Your task to perform on an android device: check storage Image 0: 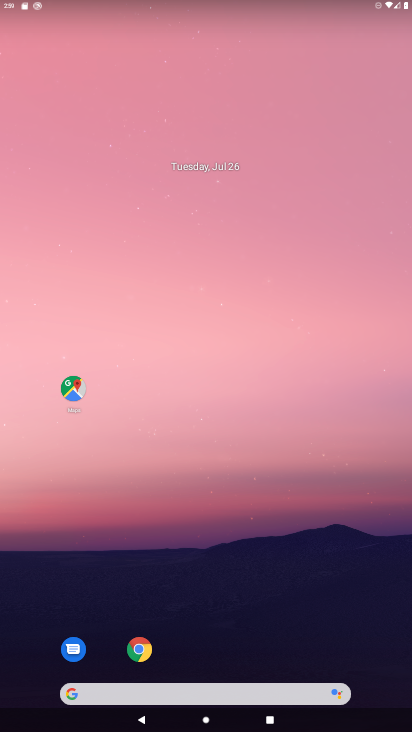
Step 0: drag from (173, 622) to (145, 127)
Your task to perform on an android device: check storage Image 1: 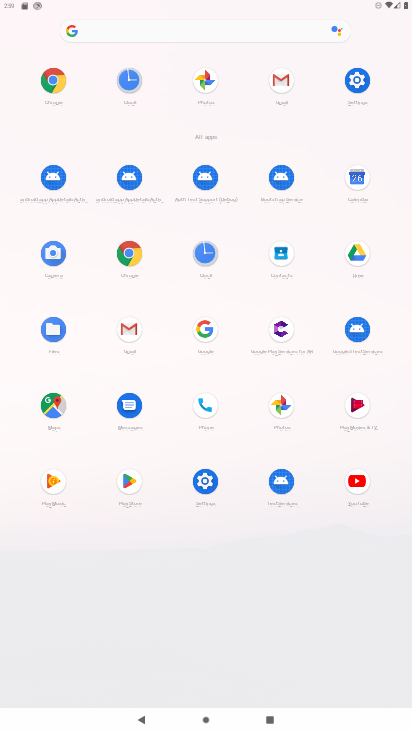
Step 1: click (357, 81)
Your task to perform on an android device: check storage Image 2: 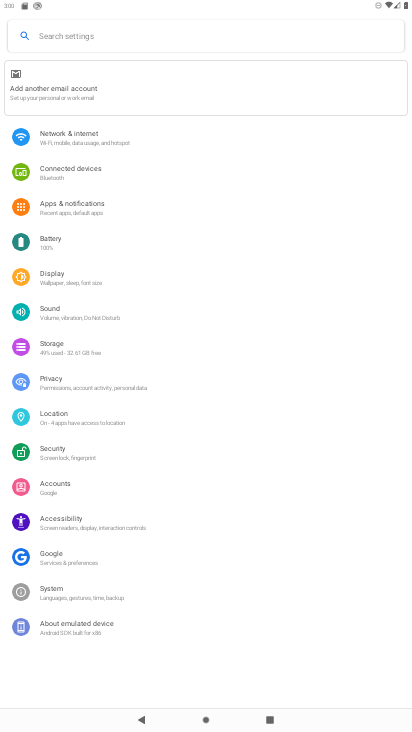
Step 2: click (93, 350)
Your task to perform on an android device: check storage Image 3: 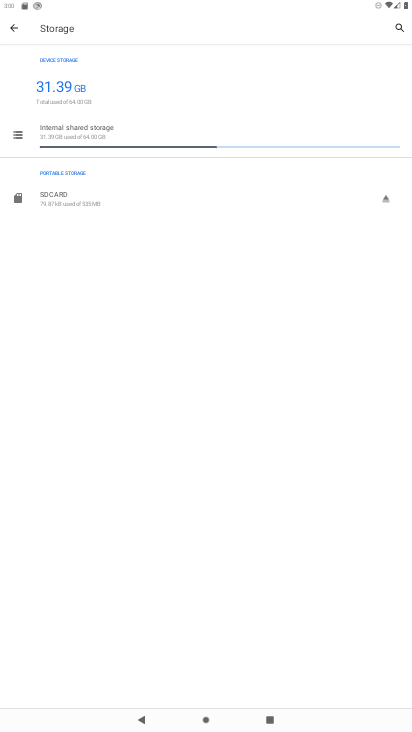
Step 3: task complete